Your task to perform on an android device: delete the emails in spam in the gmail app Image 0: 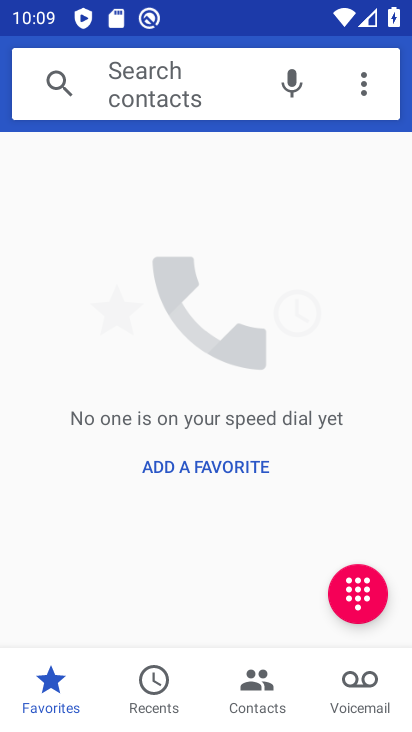
Step 0: press back button
Your task to perform on an android device: delete the emails in spam in the gmail app Image 1: 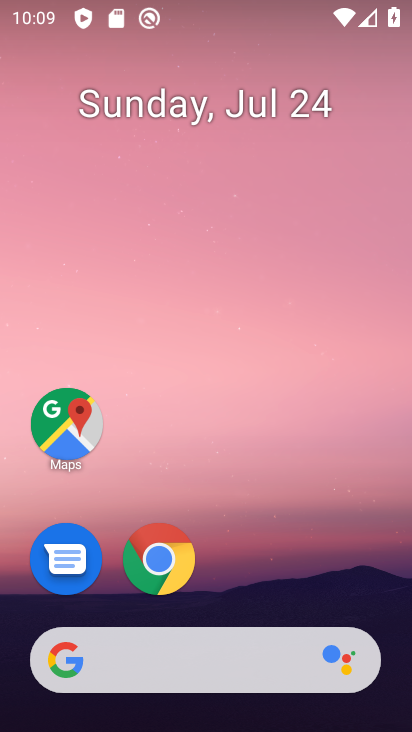
Step 1: drag from (161, 570) to (289, 1)
Your task to perform on an android device: delete the emails in spam in the gmail app Image 2: 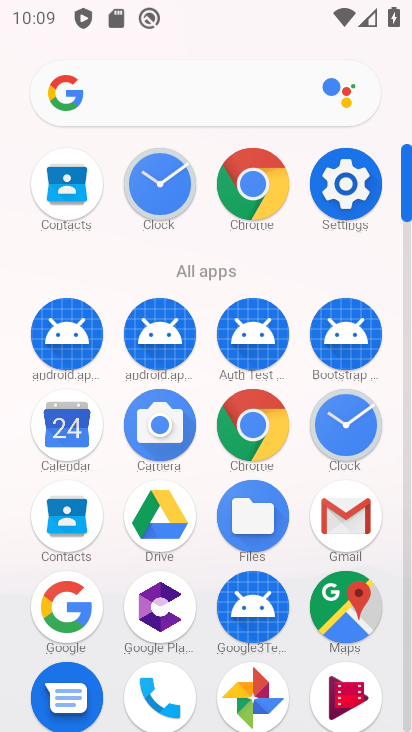
Step 2: click (330, 506)
Your task to perform on an android device: delete the emails in spam in the gmail app Image 3: 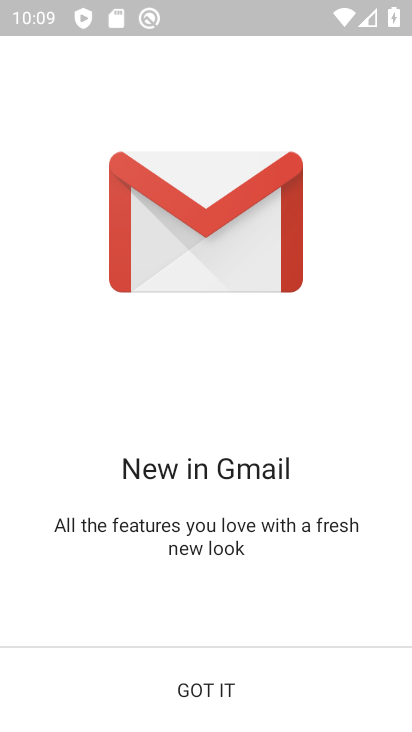
Step 3: click (225, 691)
Your task to perform on an android device: delete the emails in spam in the gmail app Image 4: 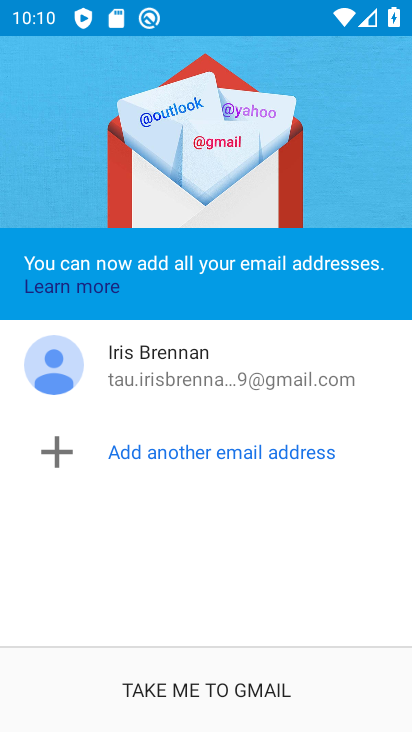
Step 4: click (189, 686)
Your task to perform on an android device: delete the emails in spam in the gmail app Image 5: 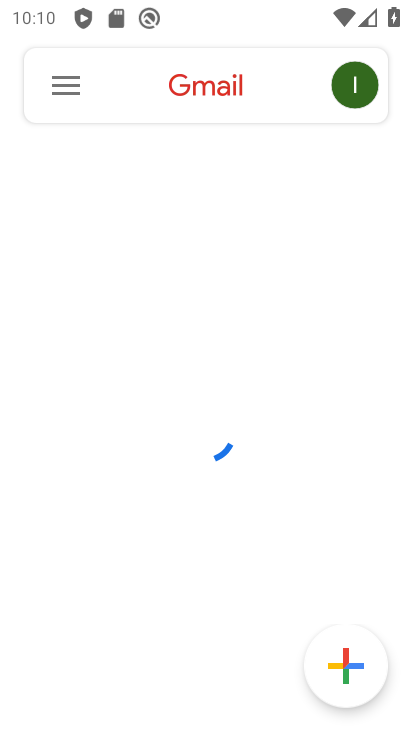
Step 5: click (74, 89)
Your task to perform on an android device: delete the emails in spam in the gmail app Image 6: 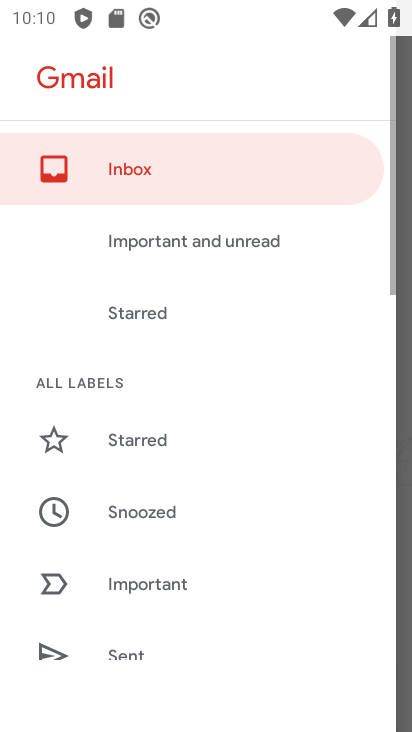
Step 6: drag from (162, 592) to (207, 130)
Your task to perform on an android device: delete the emails in spam in the gmail app Image 7: 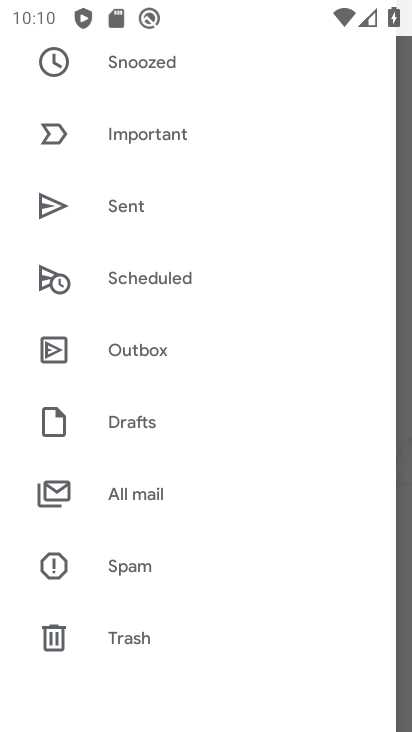
Step 7: click (140, 558)
Your task to perform on an android device: delete the emails in spam in the gmail app Image 8: 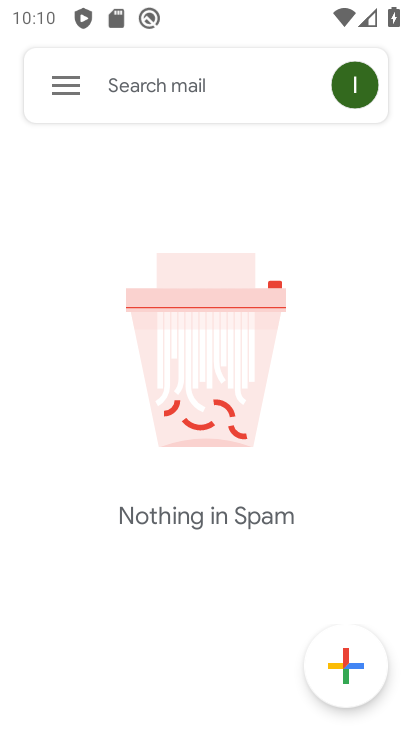
Step 8: task complete